Your task to perform on an android device: open a new tab in the chrome app Image 0: 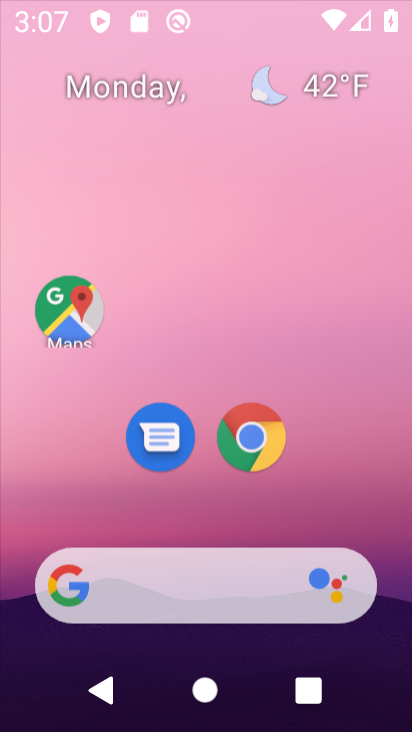
Step 0: drag from (5, 519) to (200, 87)
Your task to perform on an android device: open a new tab in the chrome app Image 1: 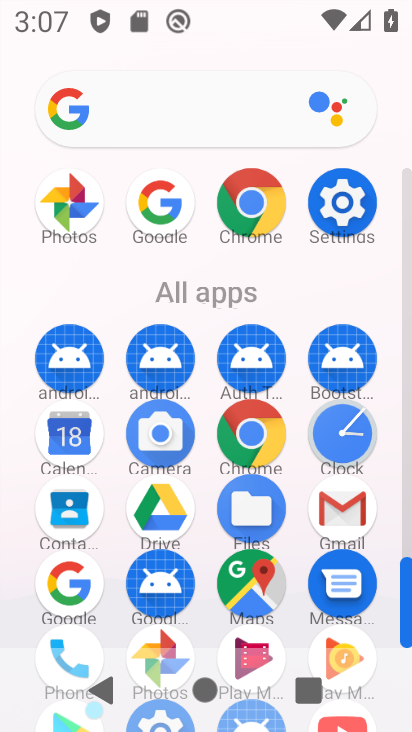
Step 1: click (261, 220)
Your task to perform on an android device: open a new tab in the chrome app Image 2: 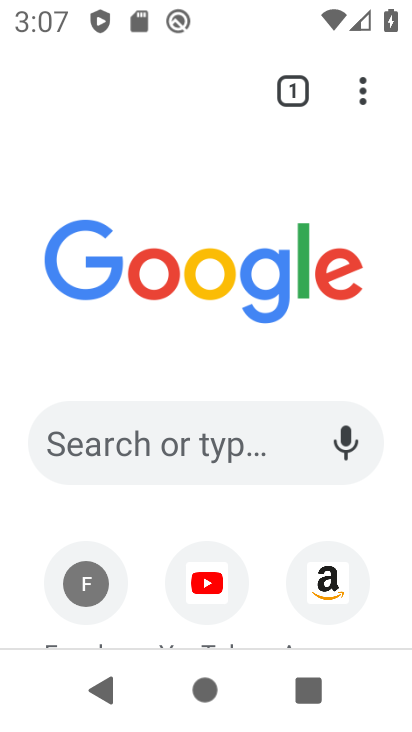
Step 2: click (274, 89)
Your task to perform on an android device: open a new tab in the chrome app Image 3: 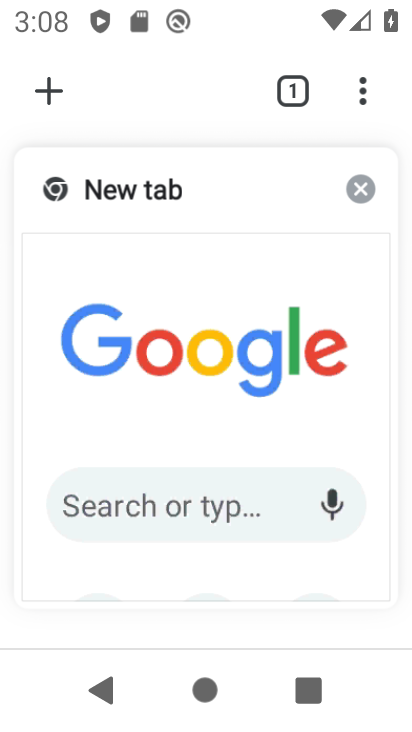
Step 3: click (37, 100)
Your task to perform on an android device: open a new tab in the chrome app Image 4: 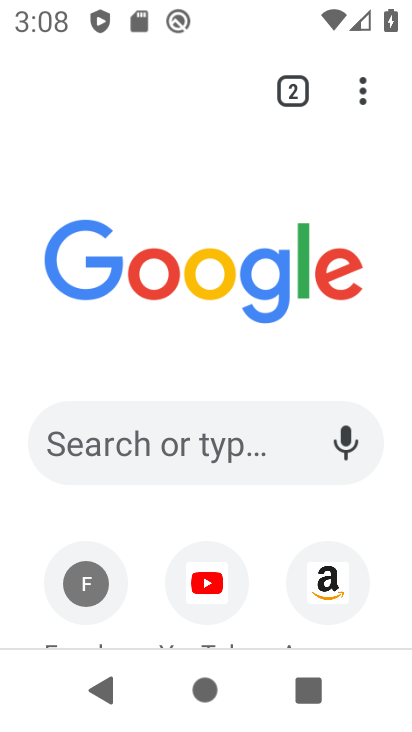
Step 4: task complete